Your task to perform on an android device: allow notifications from all sites in the chrome app Image 0: 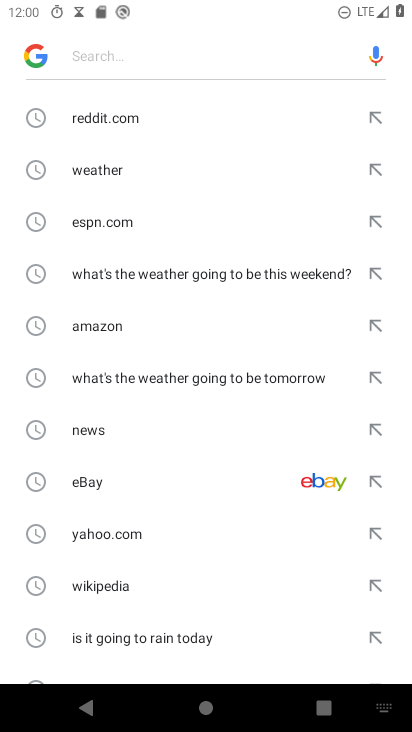
Step 0: press home button
Your task to perform on an android device: allow notifications from all sites in the chrome app Image 1: 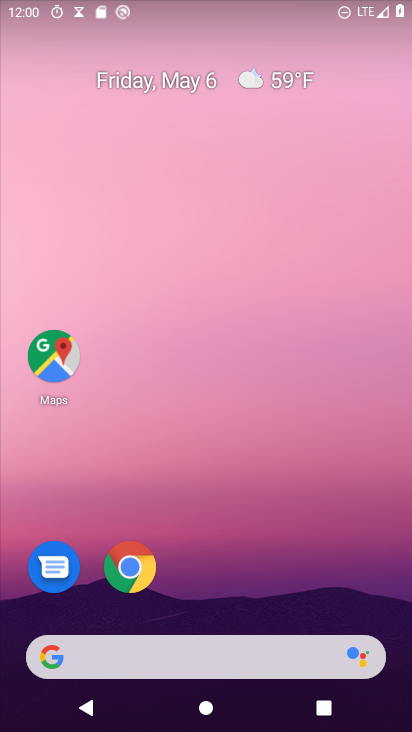
Step 1: click (133, 569)
Your task to perform on an android device: allow notifications from all sites in the chrome app Image 2: 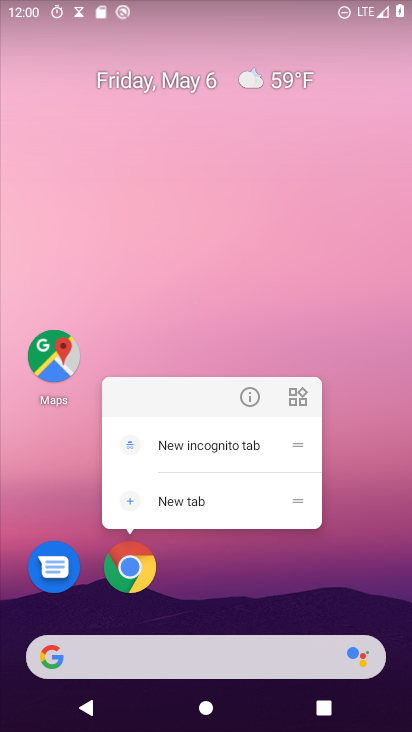
Step 2: click (133, 569)
Your task to perform on an android device: allow notifications from all sites in the chrome app Image 3: 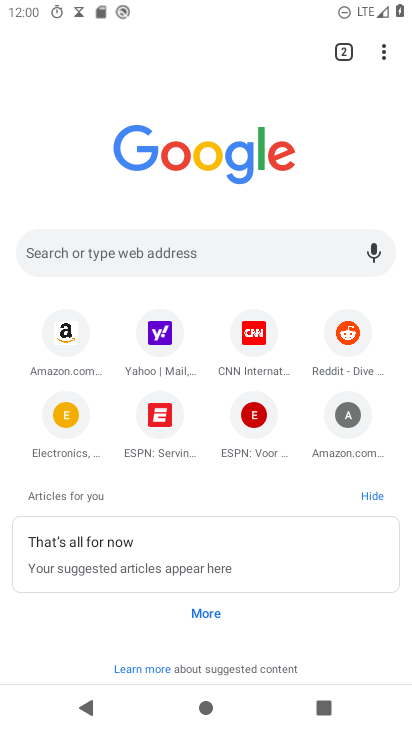
Step 3: drag from (380, 55) to (202, 441)
Your task to perform on an android device: allow notifications from all sites in the chrome app Image 4: 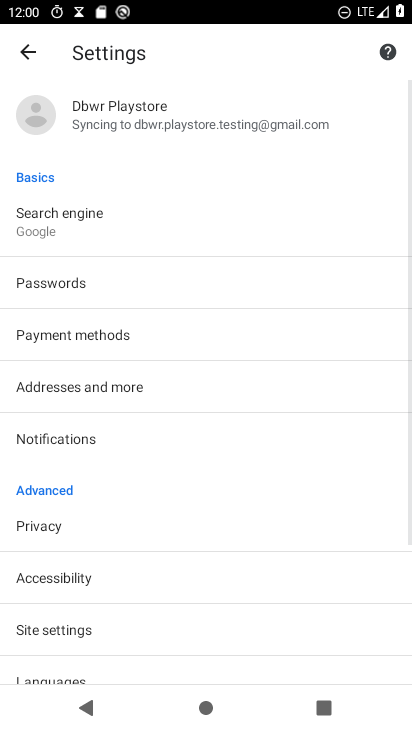
Step 4: click (79, 625)
Your task to perform on an android device: allow notifications from all sites in the chrome app Image 5: 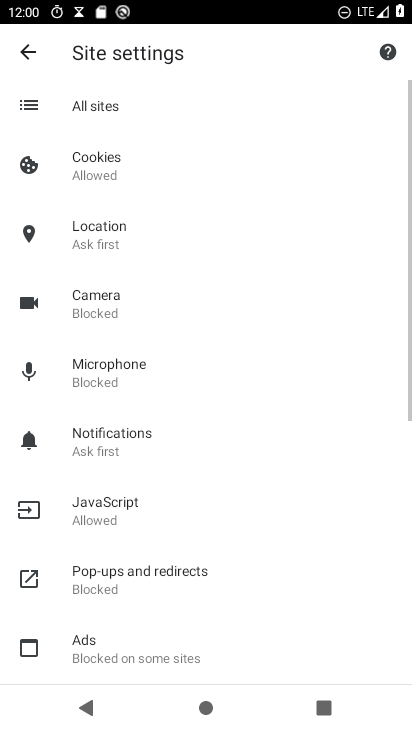
Step 5: click (101, 434)
Your task to perform on an android device: allow notifications from all sites in the chrome app Image 6: 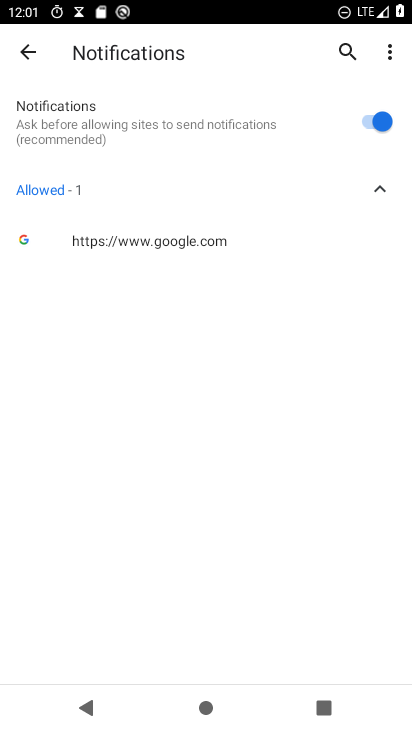
Step 6: task complete